Your task to perform on an android device: turn on improve location accuracy Image 0: 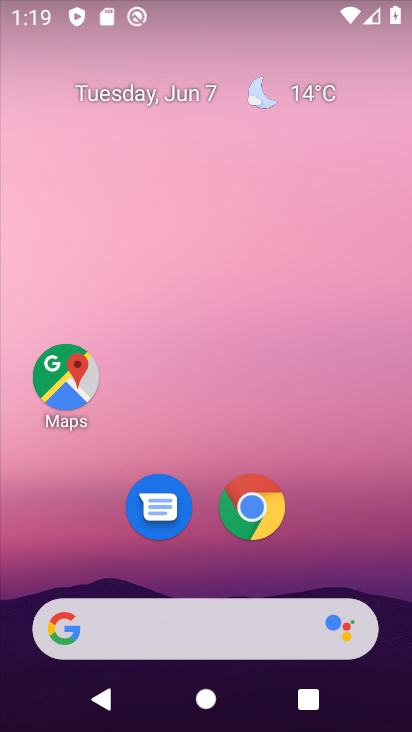
Step 0: drag from (337, 483) to (330, 79)
Your task to perform on an android device: turn on improve location accuracy Image 1: 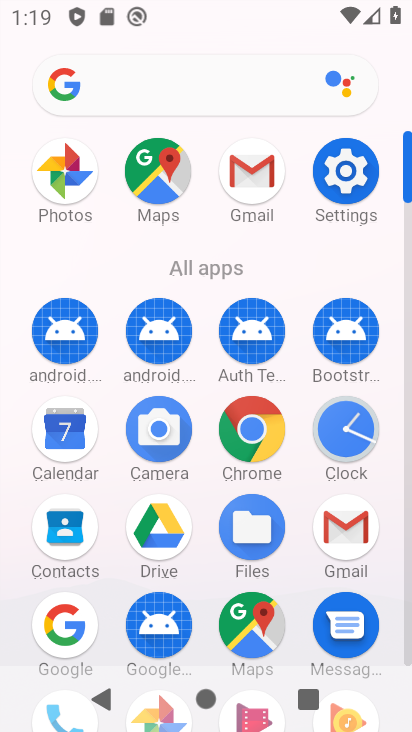
Step 1: drag from (352, 177) to (98, 174)
Your task to perform on an android device: turn on improve location accuracy Image 2: 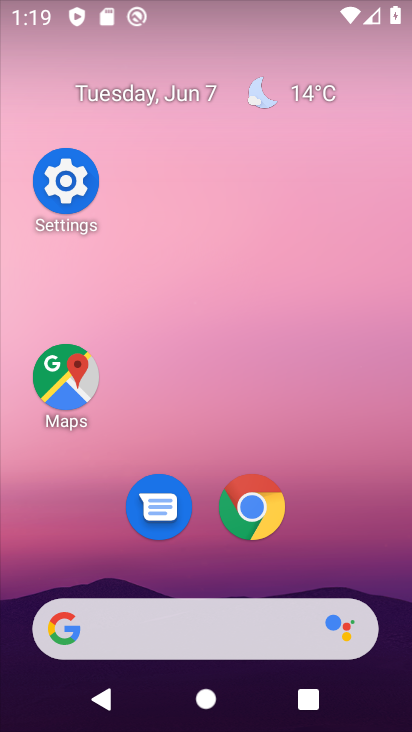
Step 2: click (95, 176)
Your task to perform on an android device: turn on improve location accuracy Image 3: 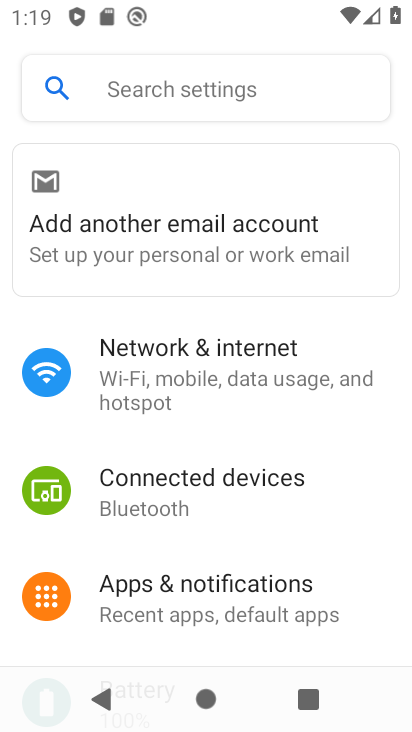
Step 3: drag from (258, 620) to (211, 208)
Your task to perform on an android device: turn on improve location accuracy Image 4: 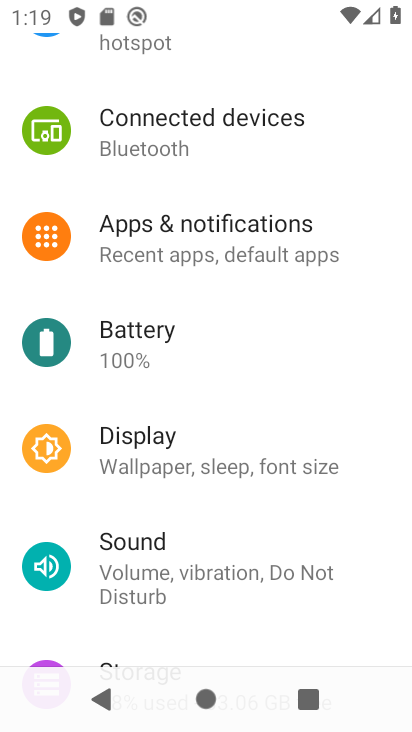
Step 4: drag from (225, 521) to (149, 217)
Your task to perform on an android device: turn on improve location accuracy Image 5: 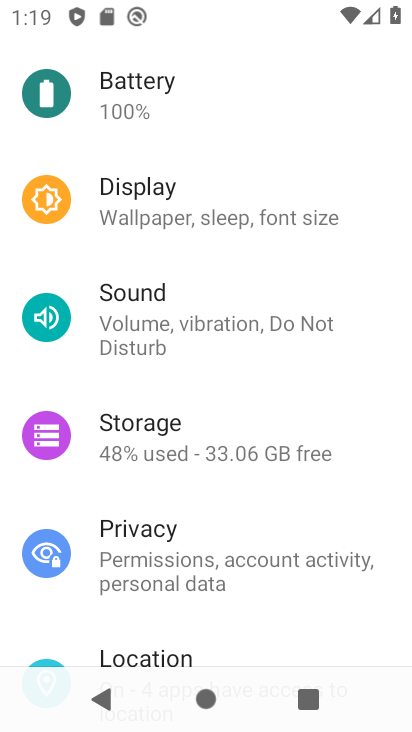
Step 5: drag from (282, 523) to (270, 253)
Your task to perform on an android device: turn on improve location accuracy Image 6: 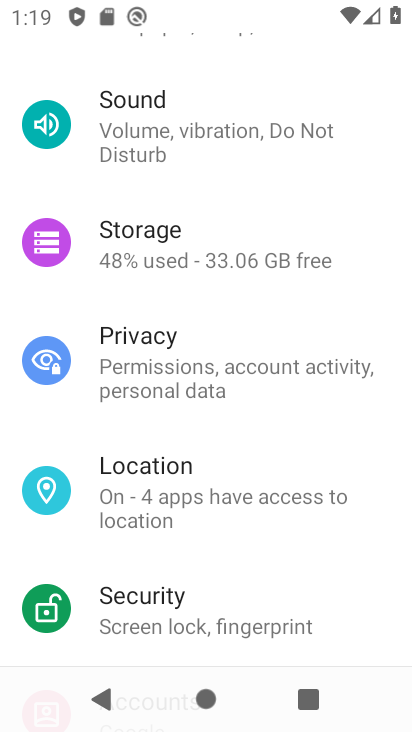
Step 6: click (242, 474)
Your task to perform on an android device: turn on improve location accuracy Image 7: 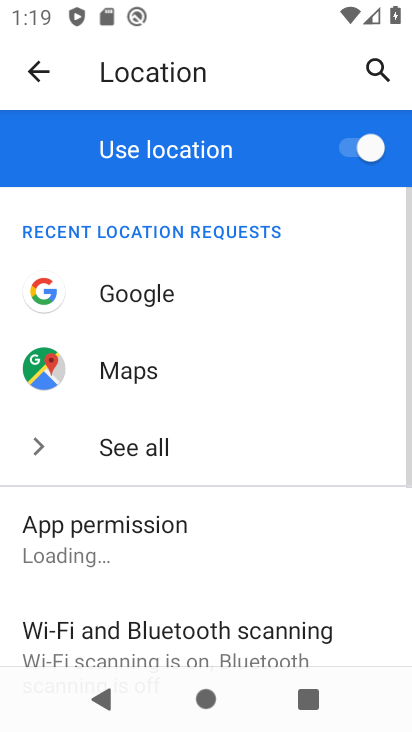
Step 7: drag from (225, 613) to (234, 233)
Your task to perform on an android device: turn on improve location accuracy Image 8: 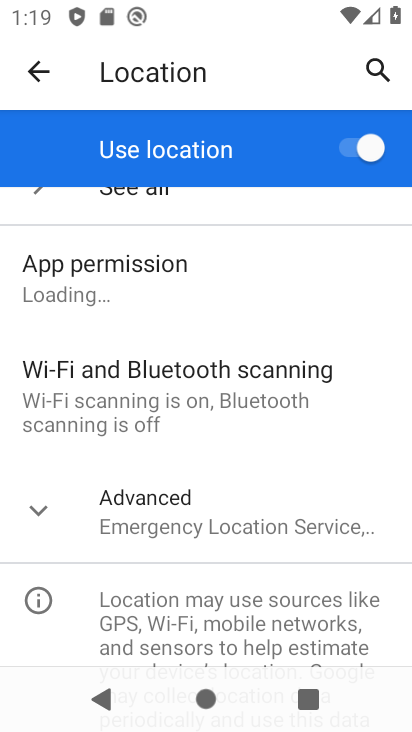
Step 8: click (225, 506)
Your task to perform on an android device: turn on improve location accuracy Image 9: 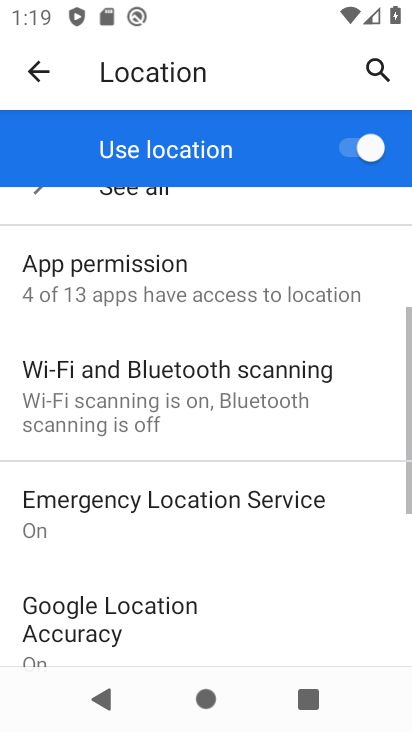
Step 9: drag from (219, 544) to (206, 269)
Your task to perform on an android device: turn on improve location accuracy Image 10: 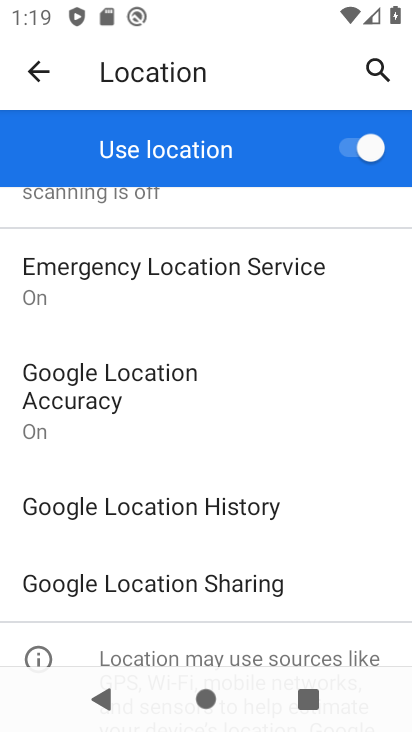
Step 10: click (177, 390)
Your task to perform on an android device: turn on improve location accuracy Image 11: 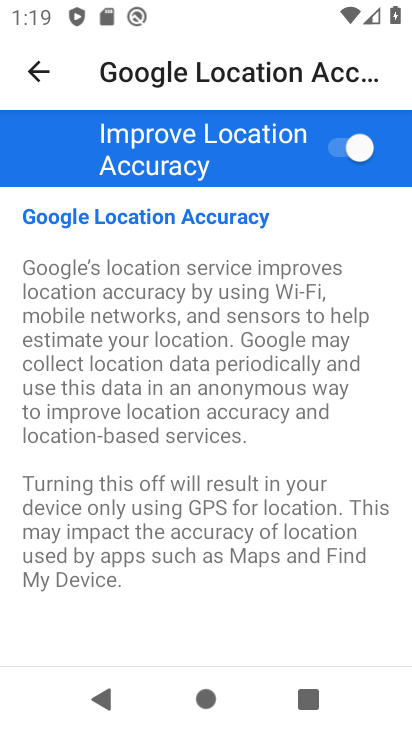
Step 11: task complete